Your task to perform on an android device: What's on my calendar tomorrow? Image 0: 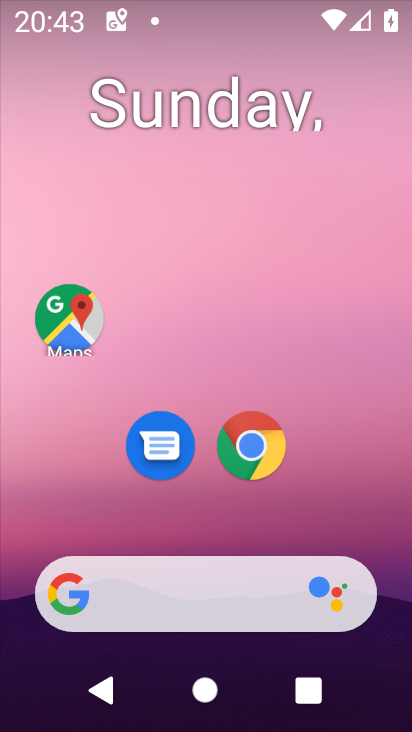
Step 0: drag from (137, 489) to (392, 116)
Your task to perform on an android device: What's on my calendar tomorrow? Image 1: 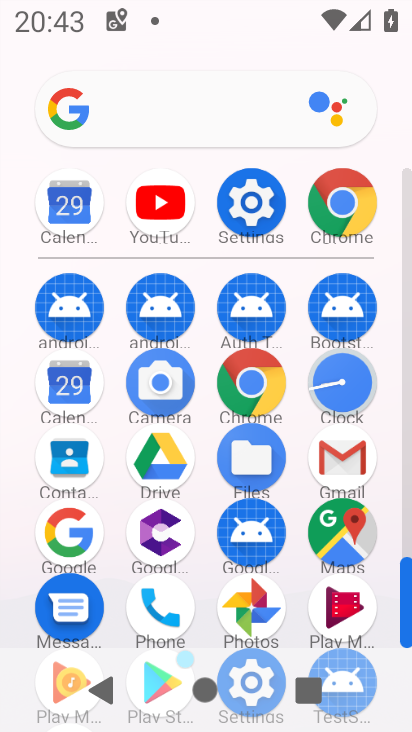
Step 1: click (82, 400)
Your task to perform on an android device: What's on my calendar tomorrow? Image 2: 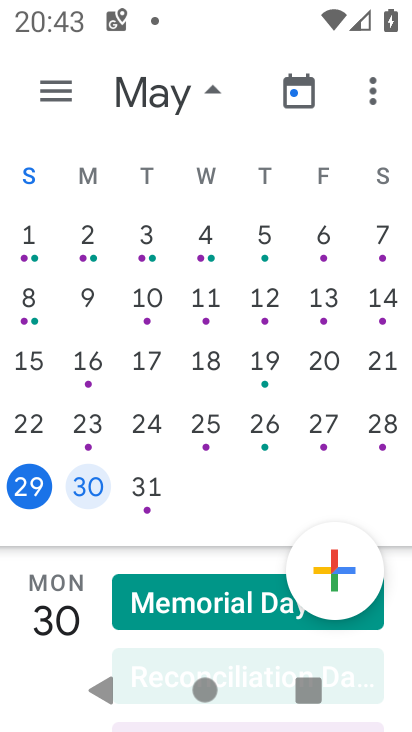
Step 2: click (78, 491)
Your task to perform on an android device: What's on my calendar tomorrow? Image 3: 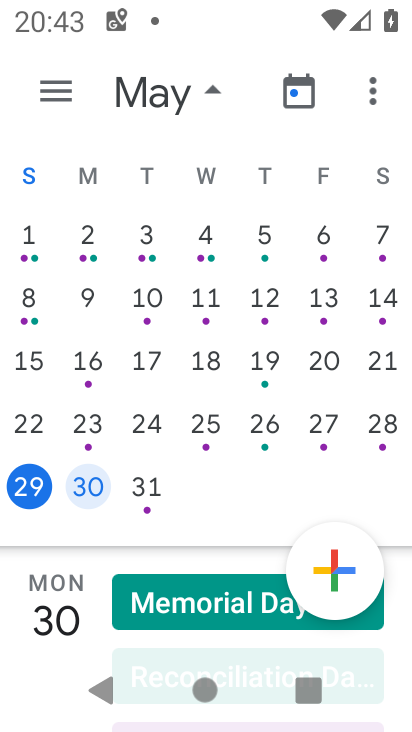
Step 3: click (79, 494)
Your task to perform on an android device: What's on my calendar tomorrow? Image 4: 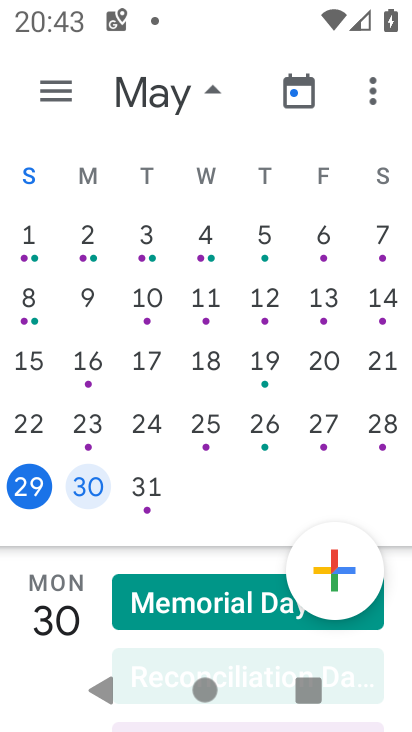
Step 4: click (92, 483)
Your task to perform on an android device: What's on my calendar tomorrow? Image 5: 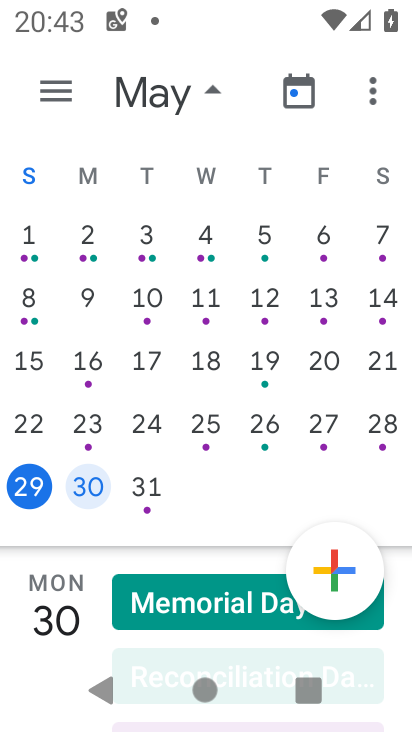
Step 5: task complete